Your task to perform on an android device: see tabs open on other devices in the chrome app Image 0: 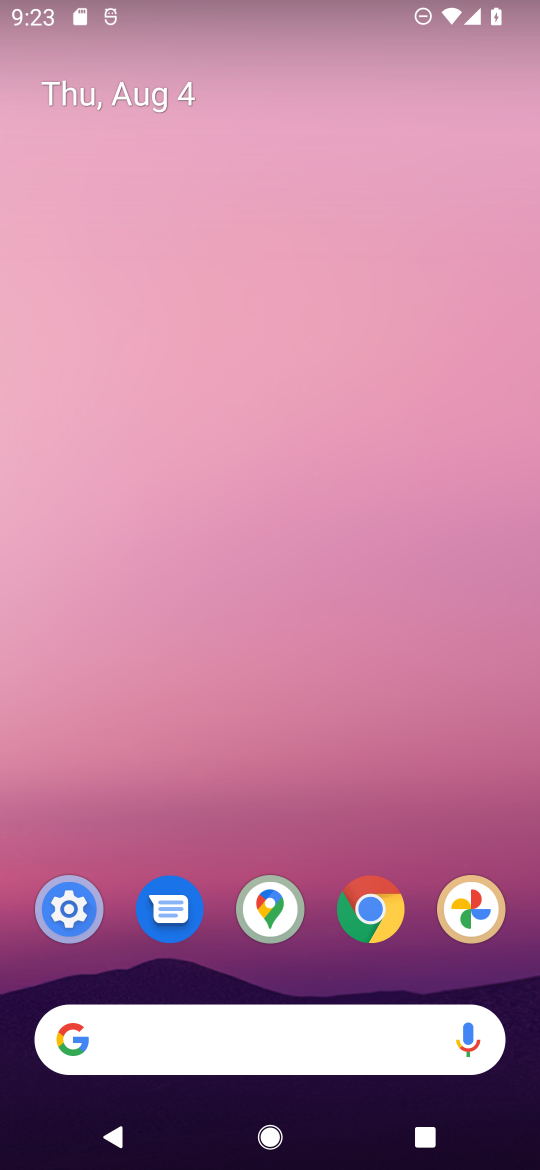
Step 0: press home button
Your task to perform on an android device: see tabs open on other devices in the chrome app Image 1: 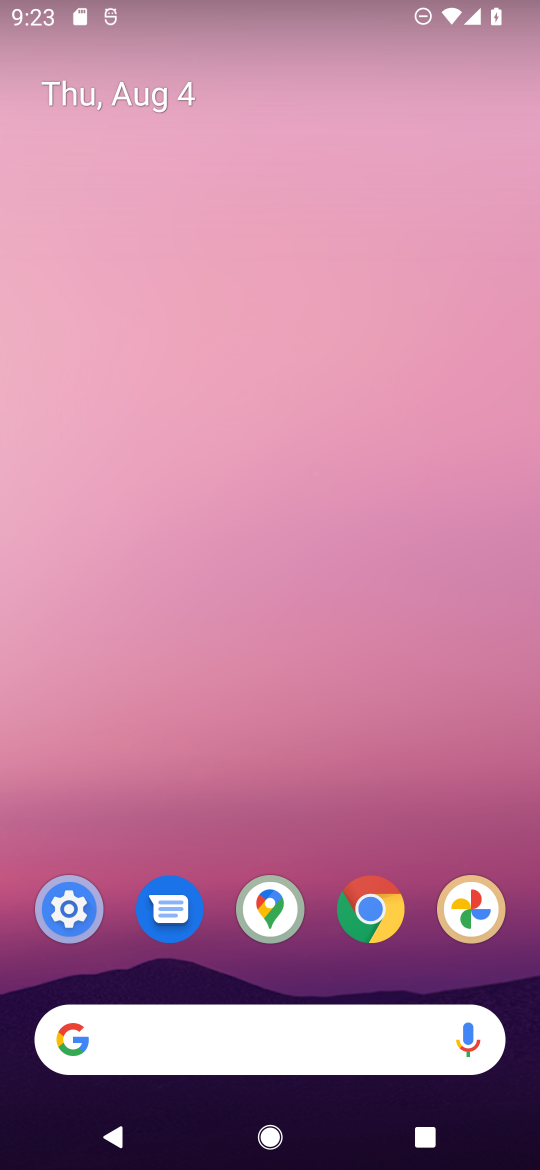
Step 1: drag from (319, 858) to (358, 231)
Your task to perform on an android device: see tabs open on other devices in the chrome app Image 2: 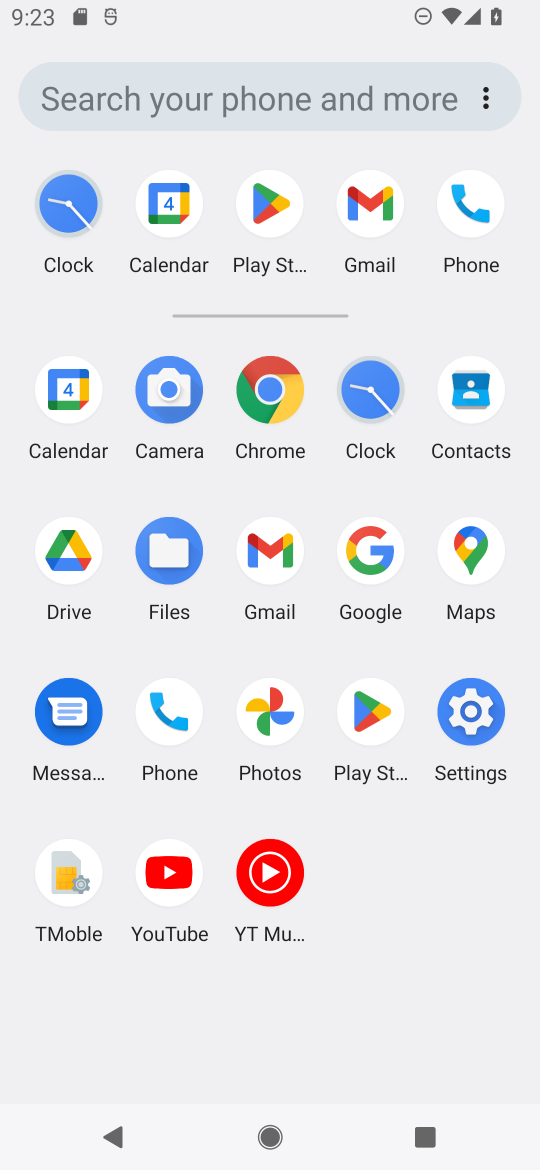
Step 2: click (273, 396)
Your task to perform on an android device: see tabs open on other devices in the chrome app Image 3: 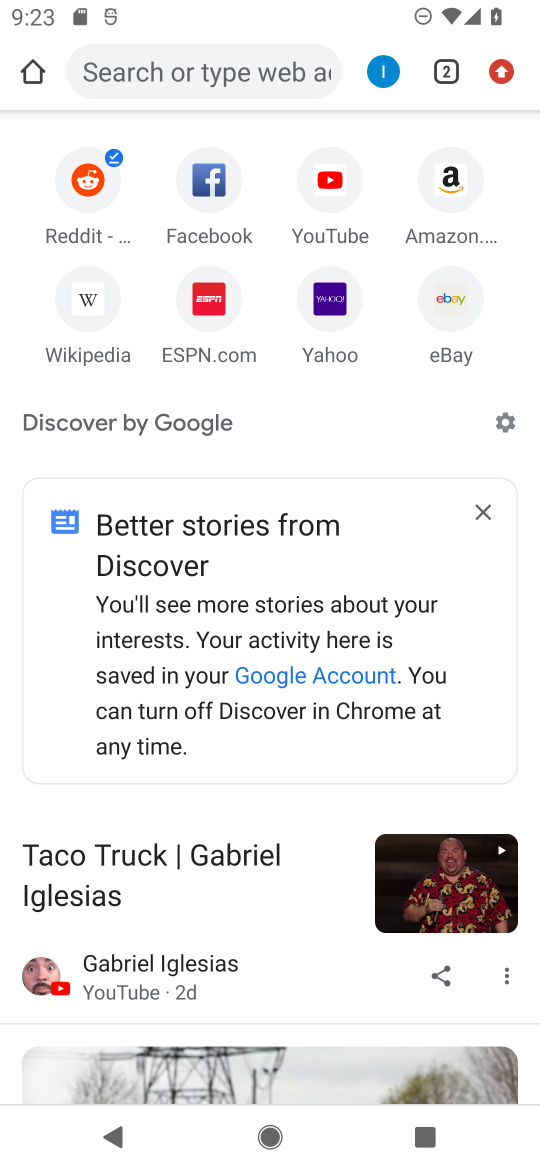
Step 3: click (503, 62)
Your task to perform on an android device: see tabs open on other devices in the chrome app Image 4: 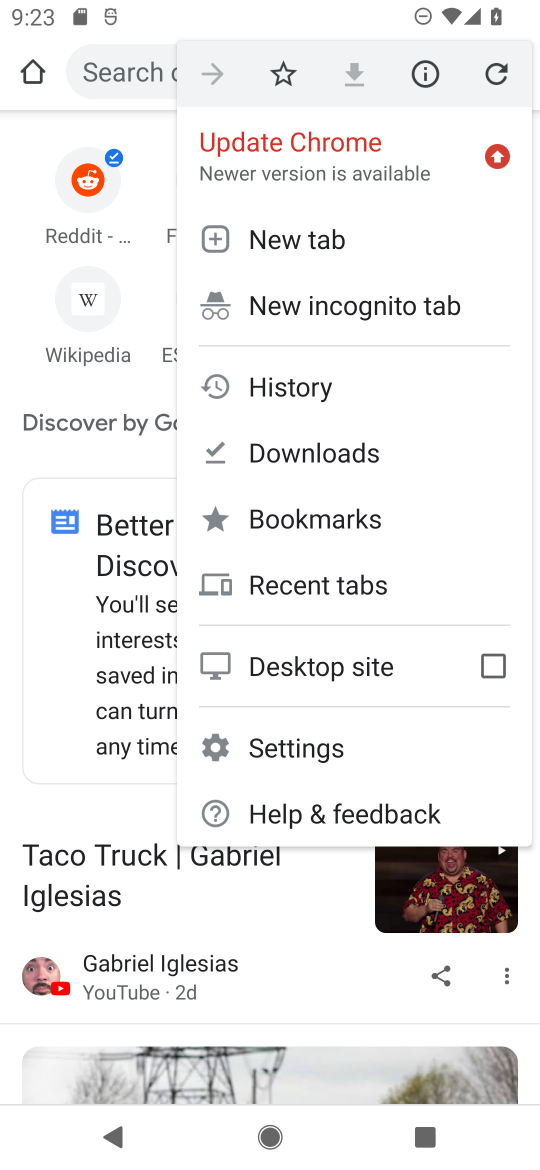
Step 4: click (342, 590)
Your task to perform on an android device: see tabs open on other devices in the chrome app Image 5: 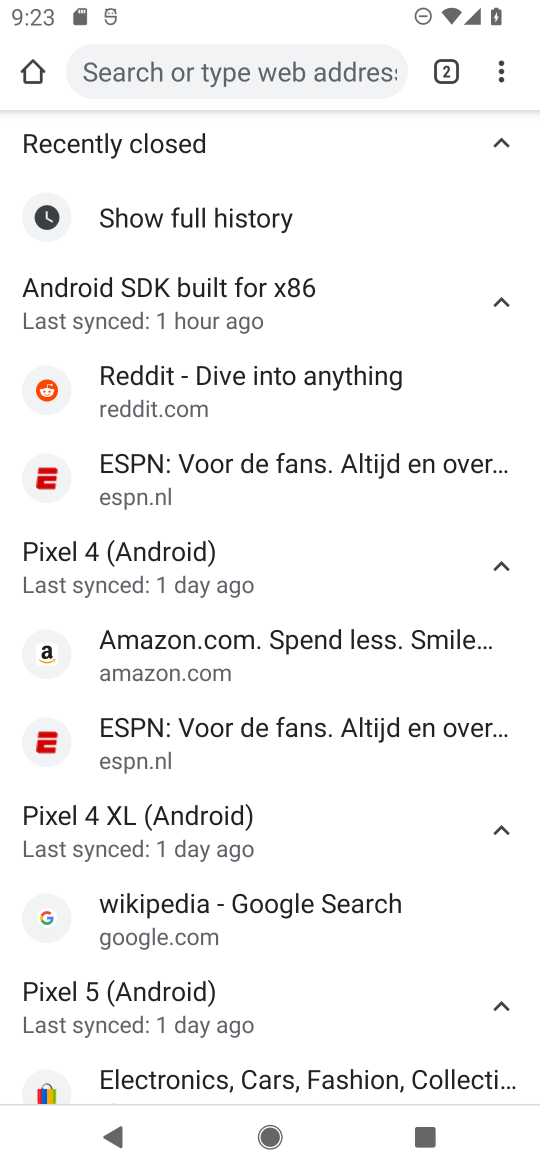
Step 5: click (447, 76)
Your task to perform on an android device: see tabs open on other devices in the chrome app Image 6: 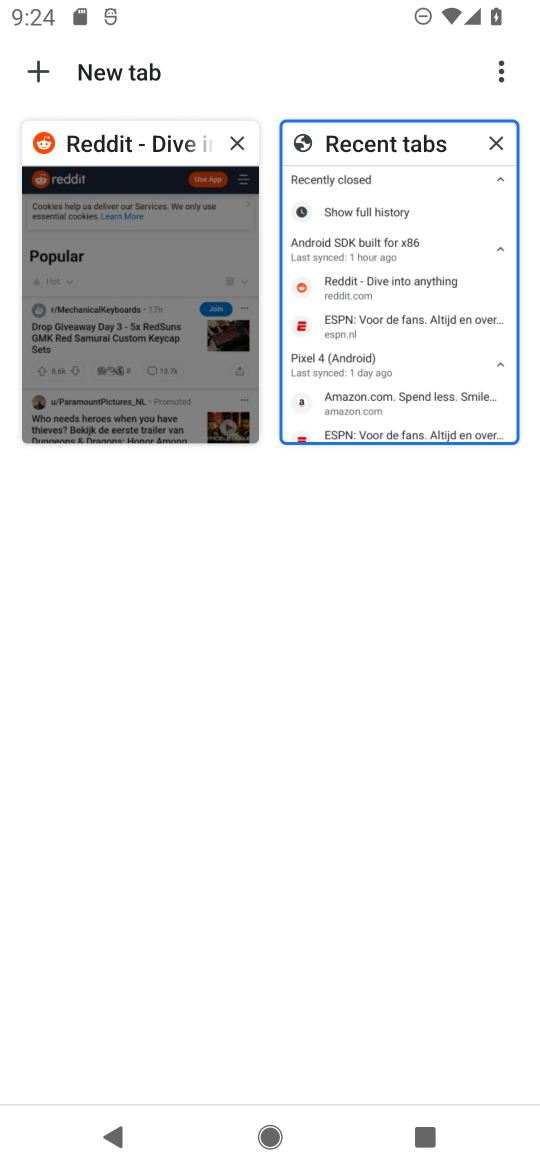
Step 6: task complete